Your task to perform on an android device: See recent photos Image 0: 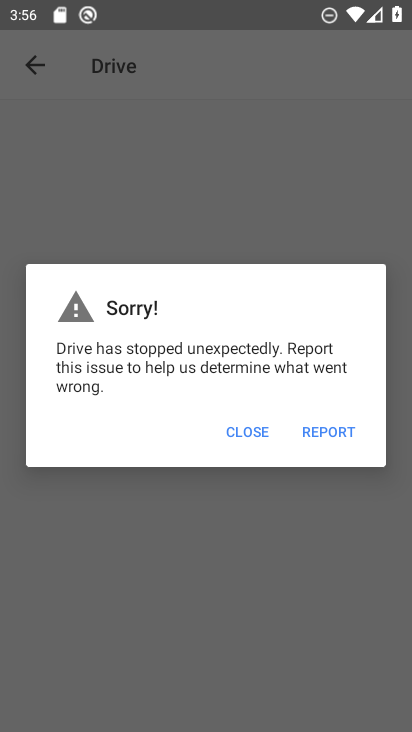
Step 0: press home button
Your task to perform on an android device: See recent photos Image 1: 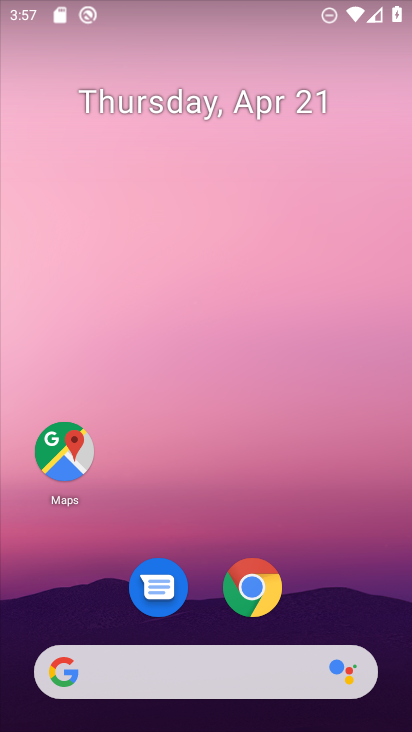
Step 1: drag from (385, 581) to (383, 5)
Your task to perform on an android device: See recent photos Image 2: 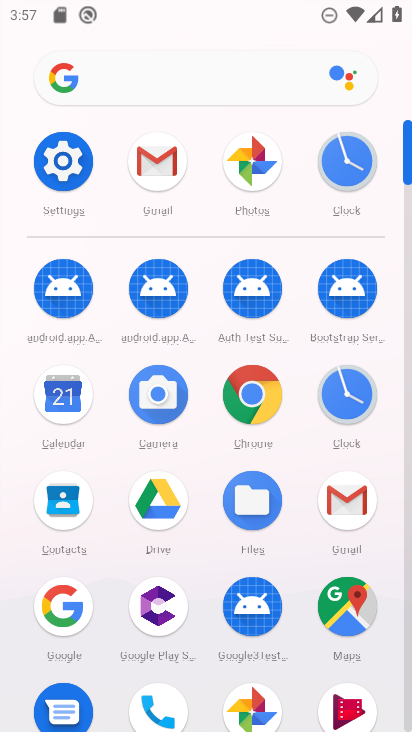
Step 2: click (252, 167)
Your task to perform on an android device: See recent photos Image 3: 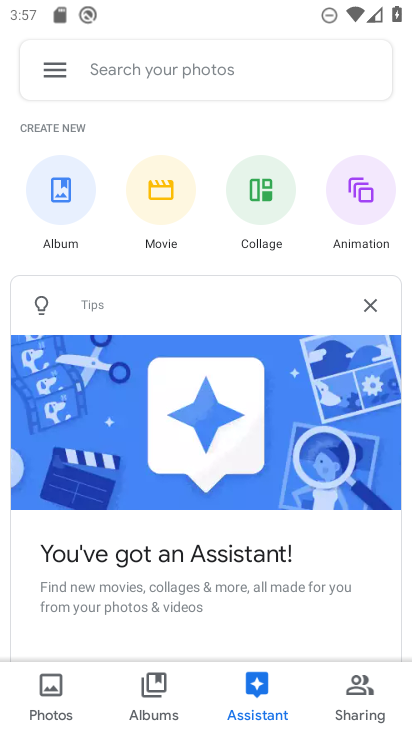
Step 3: drag from (173, 543) to (207, 291)
Your task to perform on an android device: See recent photos Image 4: 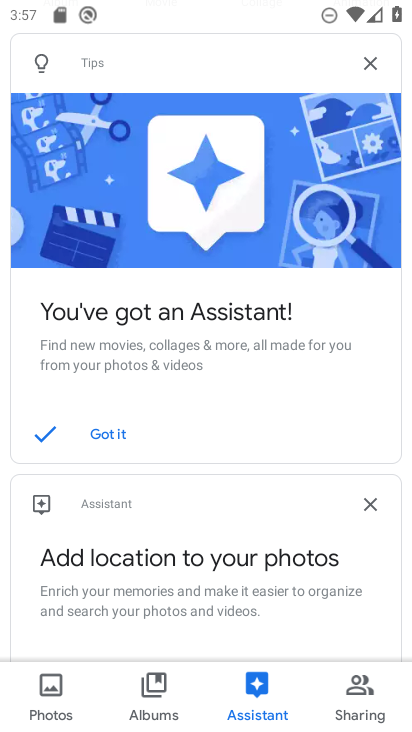
Step 4: drag from (177, 249) to (192, 449)
Your task to perform on an android device: See recent photos Image 5: 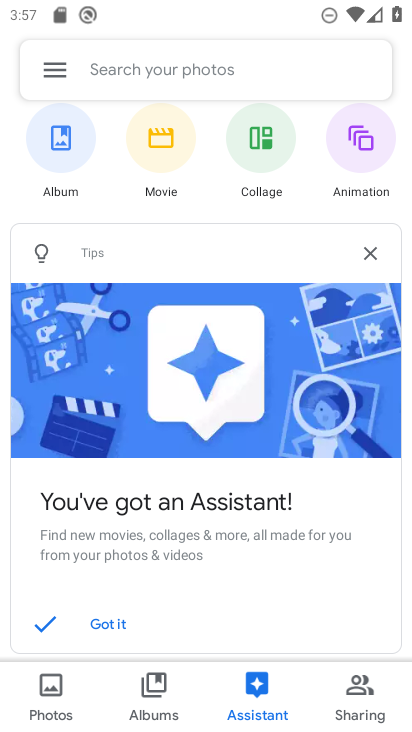
Step 5: click (55, 690)
Your task to perform on an android device: See recent photos Image 6: 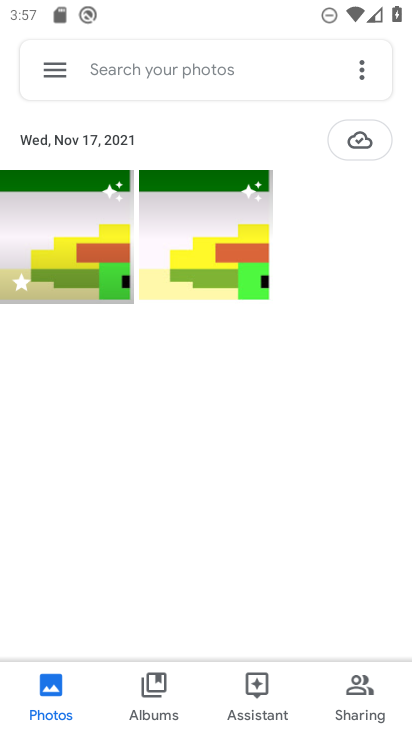
Step 6: task complete